Your task to perform on an android device: toggle data saver in the chrome app Image 0: 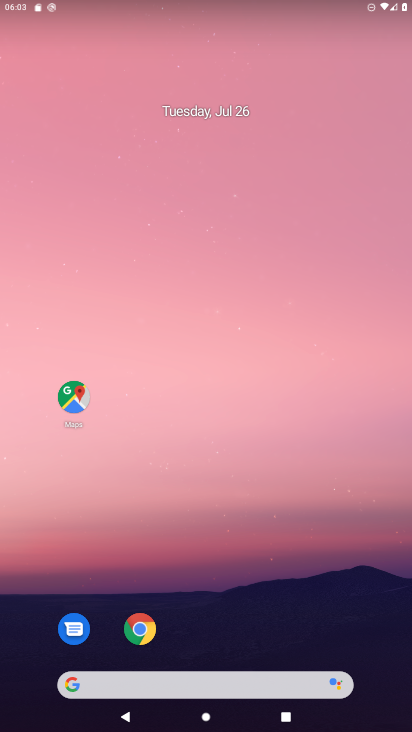
Step 0: click (139, 627)
Your task to perform on an android device: toggle data saver in the chrome app Image 1: 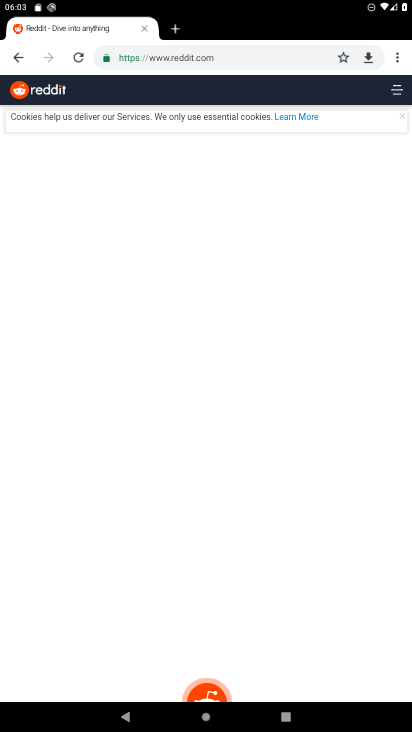
Step 1: click (397, 64)
Your task to perform on an android device: toggle data saver in the chrome app Image 2: 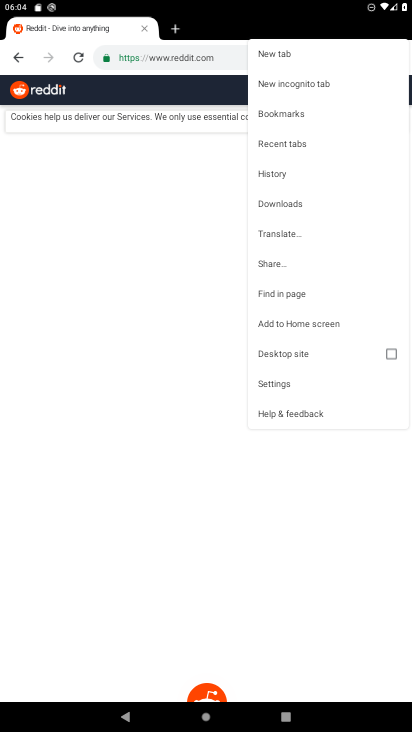
Step 2: click (271, 385)
Your task to perform on an android device: toggle data saver in the chrome app Image 3: 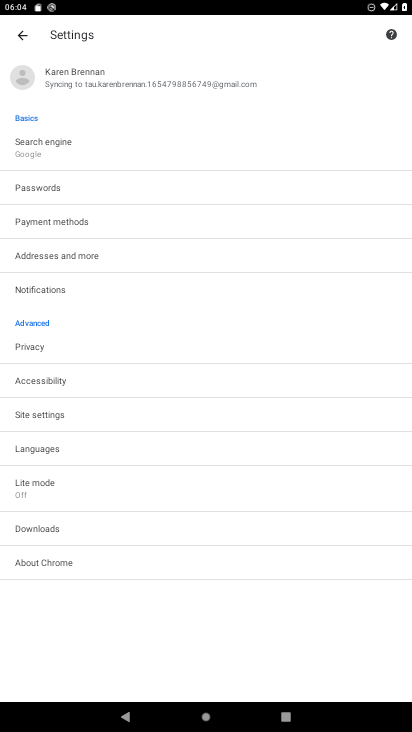
Step 3: click (51, 498)
Your task to perform on an android device: toggle data saver in the chrome app Image 4: 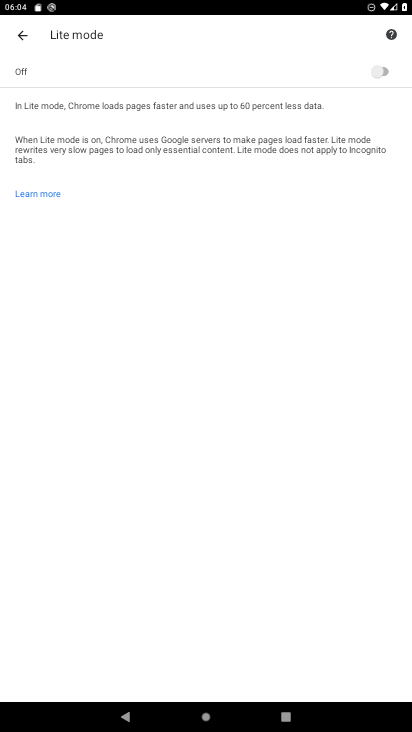
Step 4: click (382, 70)
Your task to perform on an android device: toggle data saver in the chrome app Image 5: 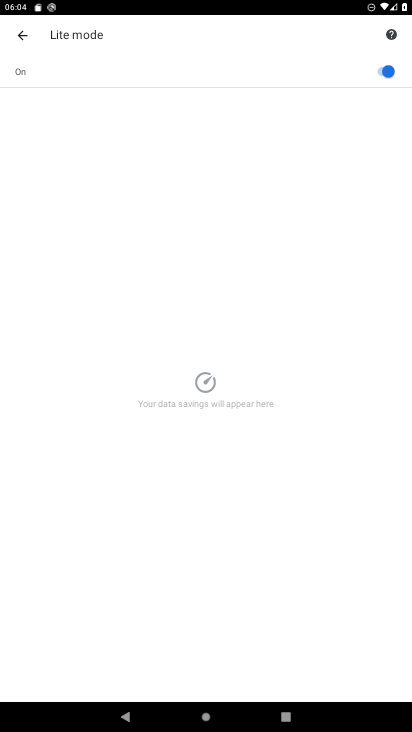
Step 5: task complete